Your task to perform on an android device: Do I have any events tomorrow? Image 0: 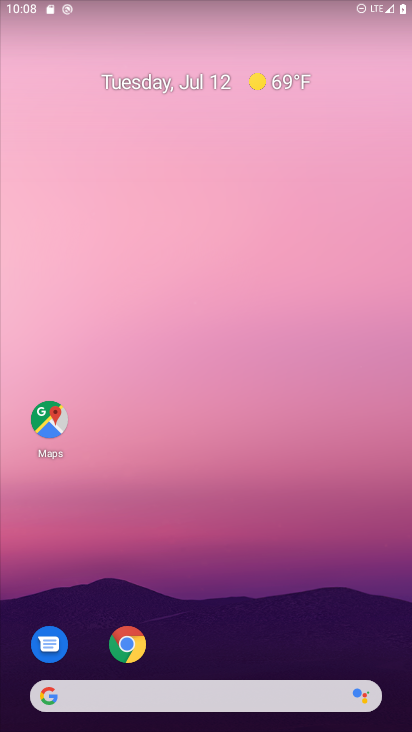
Step 0: drag from (219, 665) to (214, 48)
Your task to perform on an android device: Do I have any events tomorrow? Image 1: 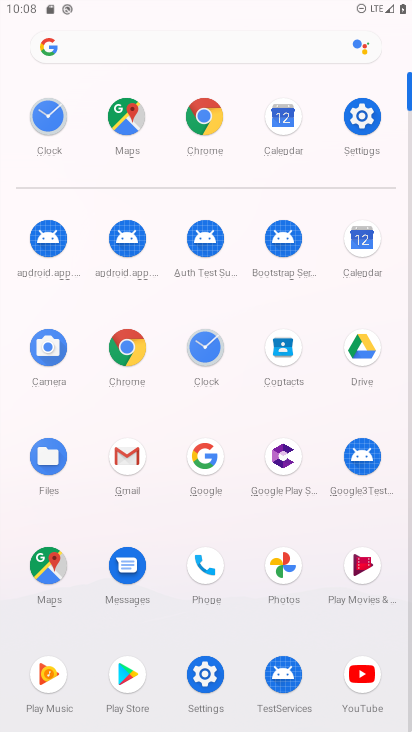
Step 1: click (361, 236)
Your task to perform on an android device: Do I have any events tomorrow? Image 2: 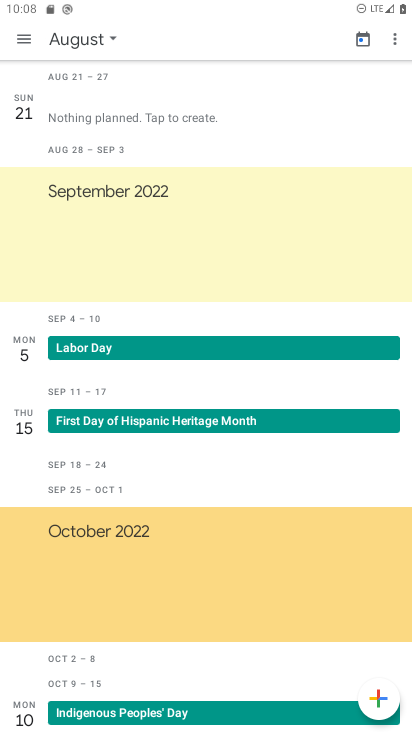
Step 2: click (19, 37)
Your task to perform on an android device: Do I have any events tomorrow? Image 3: 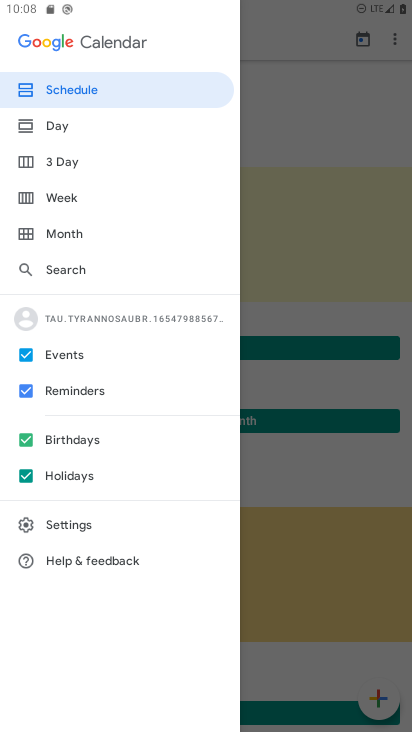
Step 3: click (60, 119)
Your task to perform on an android device: Do I have any events tomorrow? Image 4: 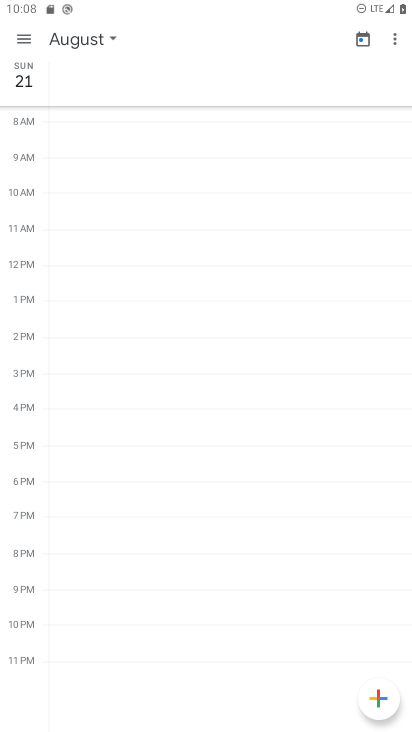
Step 4: click (110, 36)
Your task to perform on an android device: Do I have any events tomorrow? Image 5: 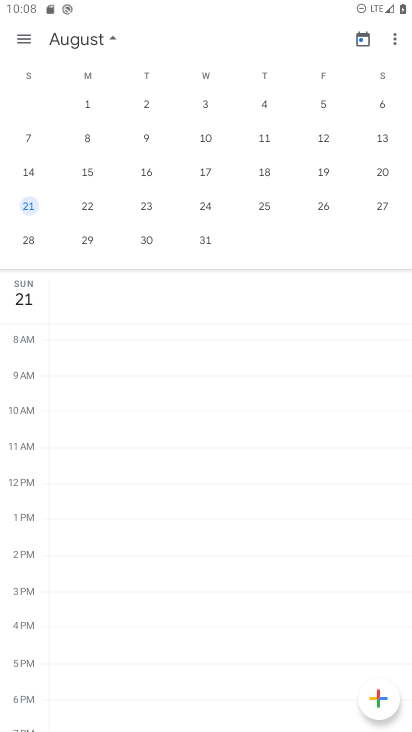
Step 5: drag from (49, 182) to (387, 220)
Your task to perform on an android device: Do I have any events tomorrow? Image 6: 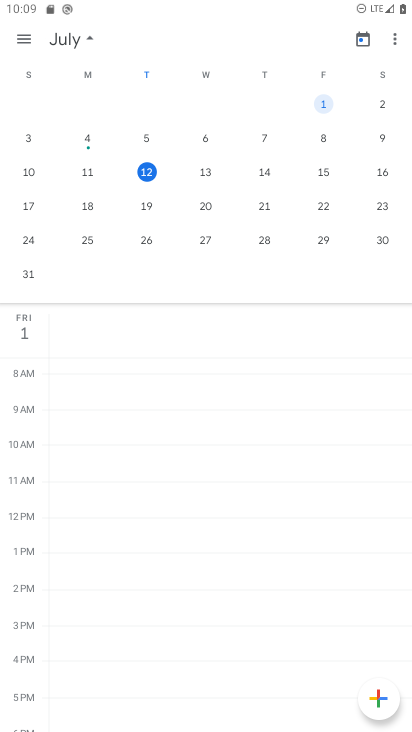
Step 6: click (203, 169)
Your task to perform on an android device: Do I have any events tomorrow? Image 7: 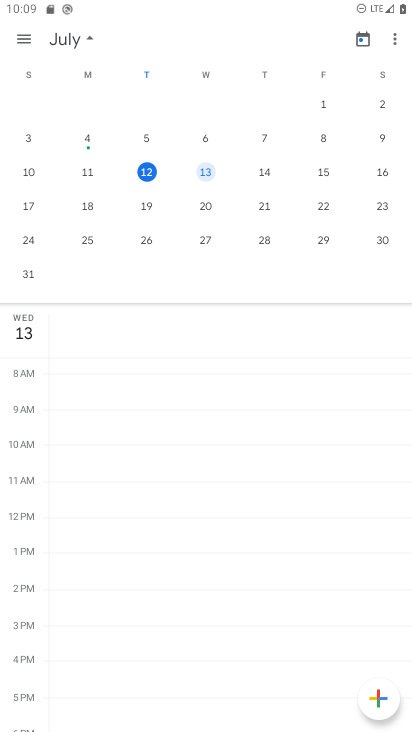
Step 7: click (84, 33)
Your task to perform on an android device: Do I have any events tomorrow? Image 8: 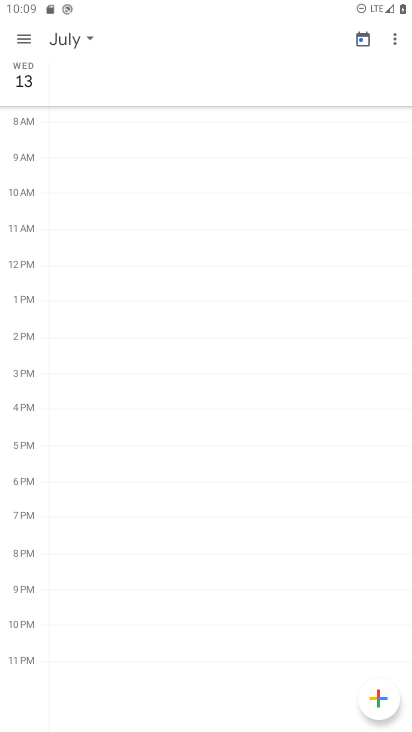
Step 8: task complete